Your task to perform on an android device: Open network settings Image 0: 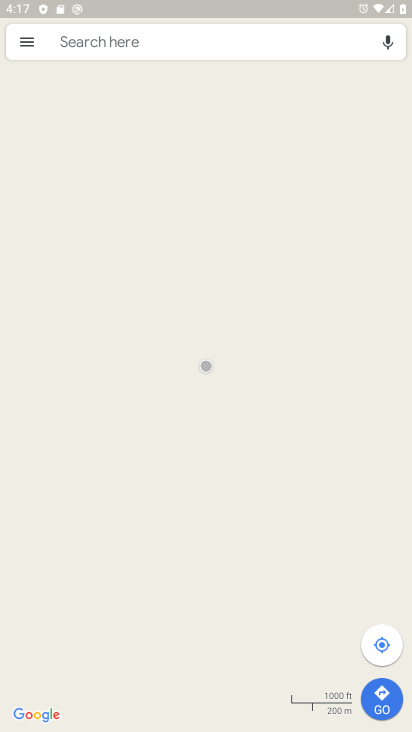
Step 0: press home button
Your task to perform on an android device: Open network settings Image 1: 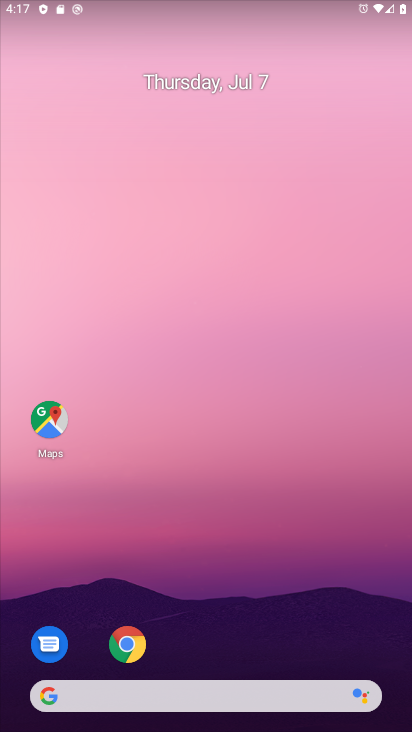
Step 1: drag from (260, 612) to (245, 160)
Your task to perform on an android device: Open network settings Image 2: 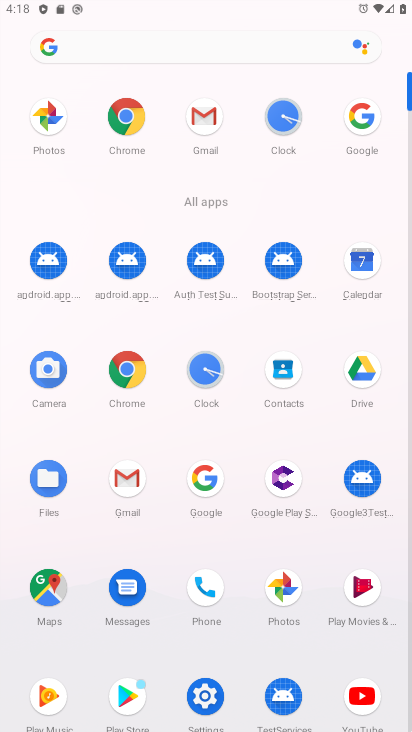
Step 2: click (204, 692)
Your task to perform on an android device: Open network settings Image 3: 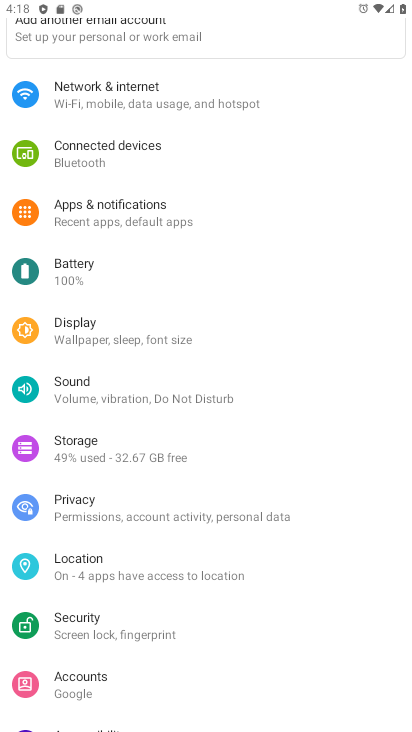
Step 3: click (152, 102)
Your task to perform on an android device: Open network settings Image 4: 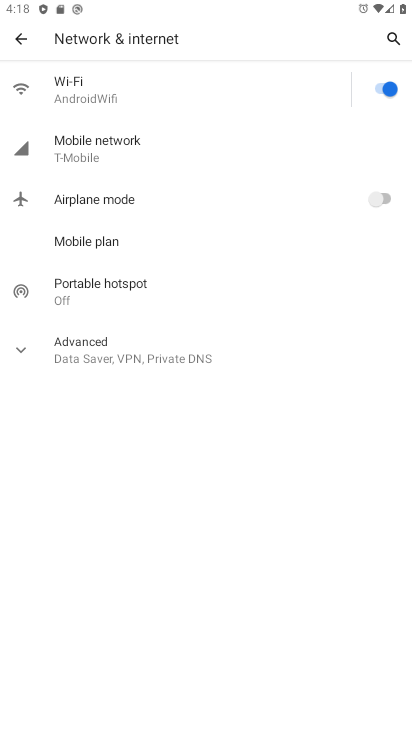
Step 4: task complete